Your task to perform on an android device: toggle show notifications on the lock screen Image 0: 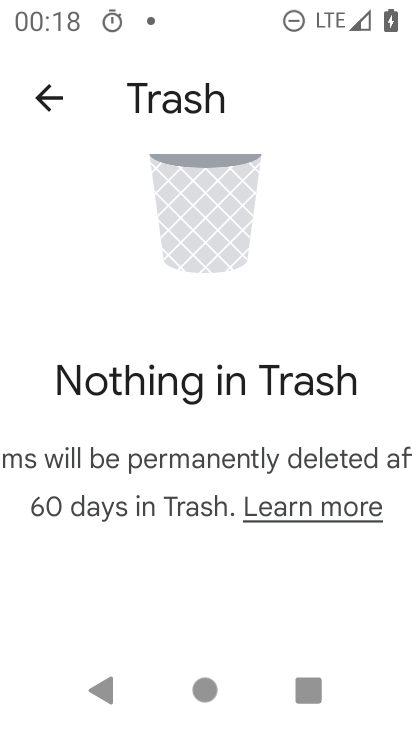
Step 0: click (214, 304)
Your task to perform on an android device: toggle show notifications on the lock screen Image 1: 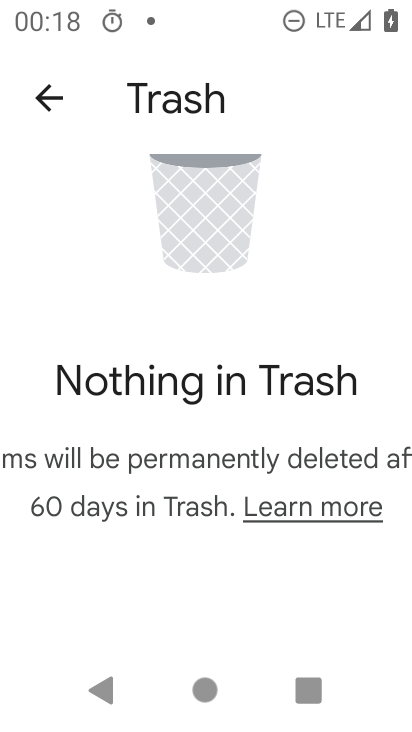
Step 1: click (52, 95)
Your task to perform on an android device: toggle show notifications on the lock screen Image 2: 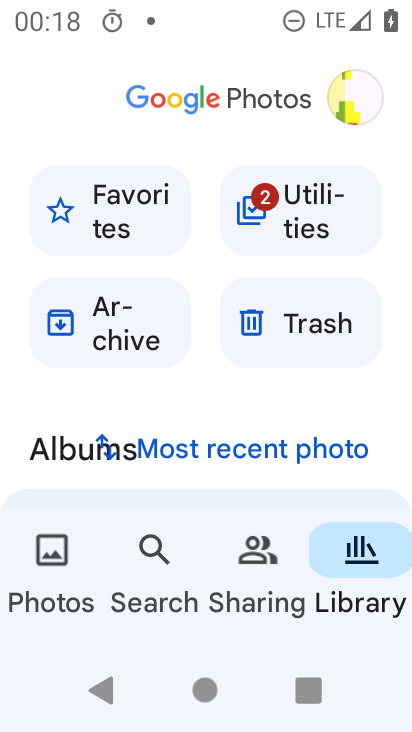
Step 2: press home button
Your task to perform on an android device: toggle show notifications on the lock screen Image 3: 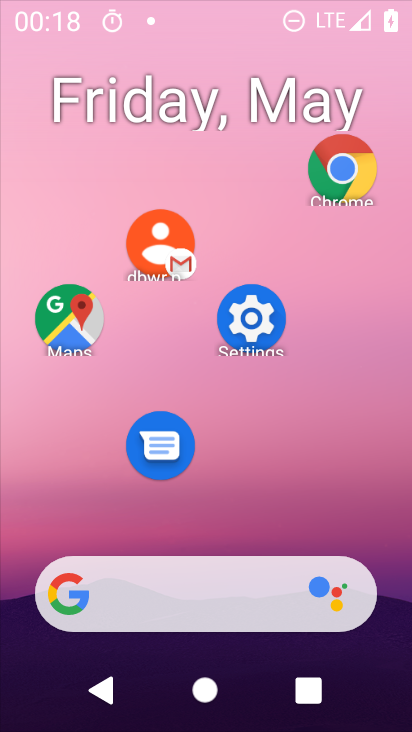
Step 3: drag from (190, 530) to (238, 122)
Your task to perform on an android device: toggle show notifications on the lock screen Image 4: 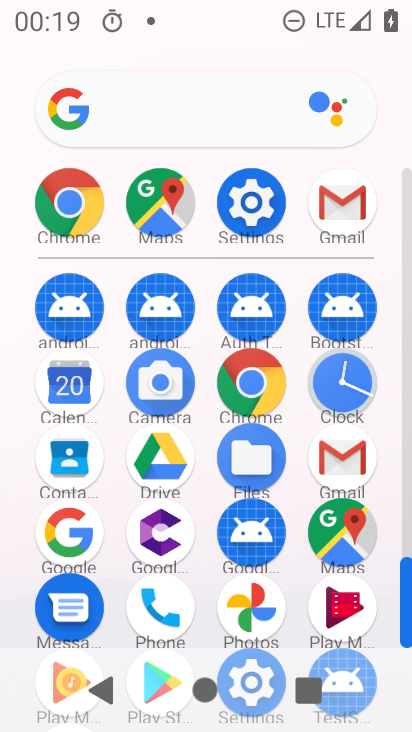
Step 4: click (230, 223)
Your task to perform on an android device: toggle show notifications on the lock screen Image 5: 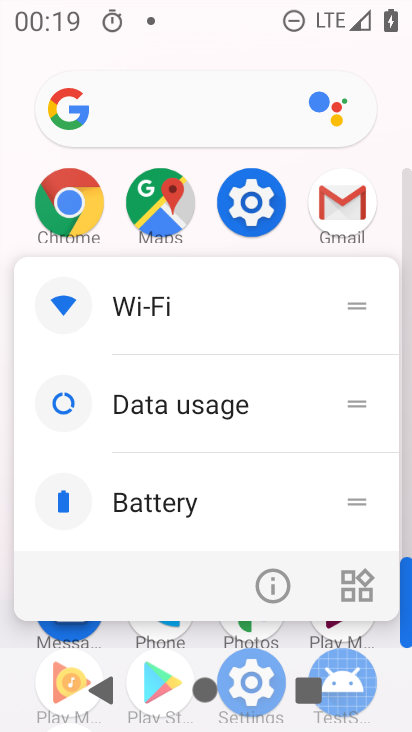
Step 5: click (275, 599)
Your task to perform on an android device: toggle show notifications on the lock screen Image 6: 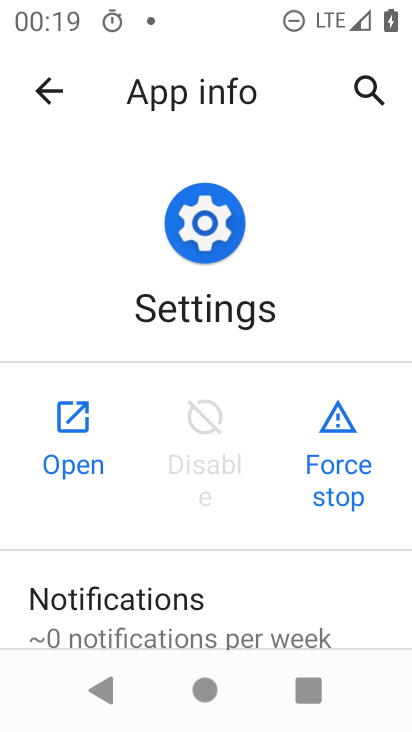
Step 6: click (71, 458)
Your task to perform on an android device: toggle show notifications on the lock screen Image 7: 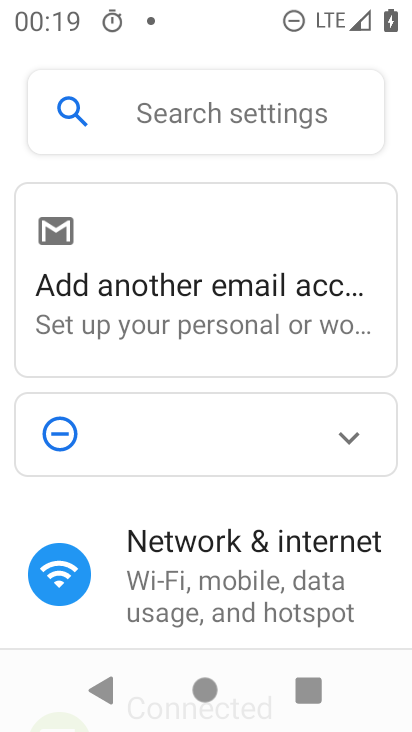
Step 7: drag from (250, 542) to (362, 182)
Your task to perform on an android device: toggle show notifications on the lock screen Image 8: 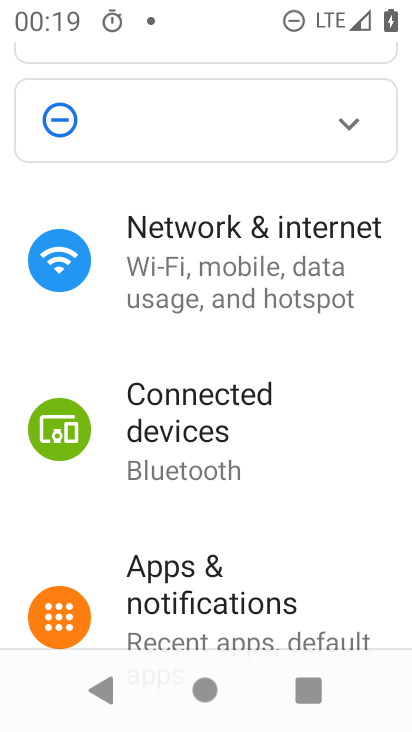
Step 8: click (216, 552)
Your task to perform on an android device: toggle show notifications on the lock screen Image 9: 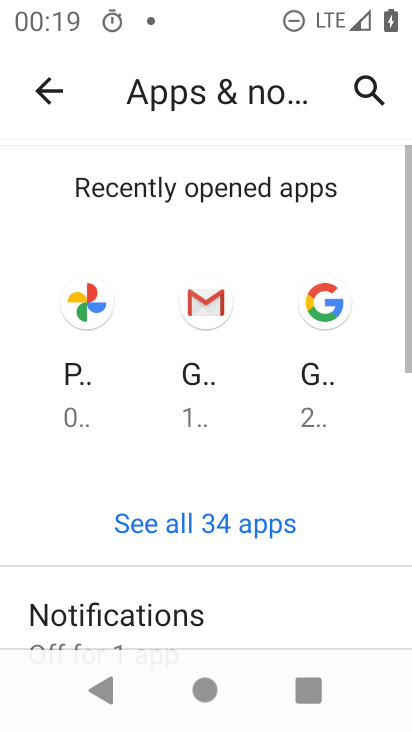
Step 9: drag from (218, 547) to (340, 71)
Your task to perform on an android device: toggle show notifications on the lock screen Image 10: 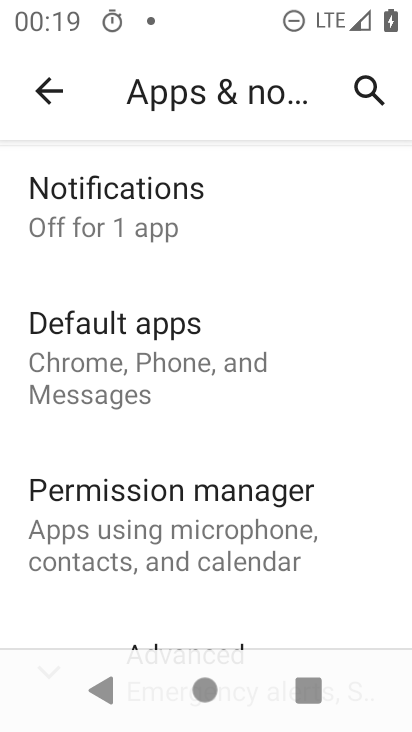
Step 10: click (187, 222)
Your task to perform on an android device: toggle show notifications on the lock screen Image 11: 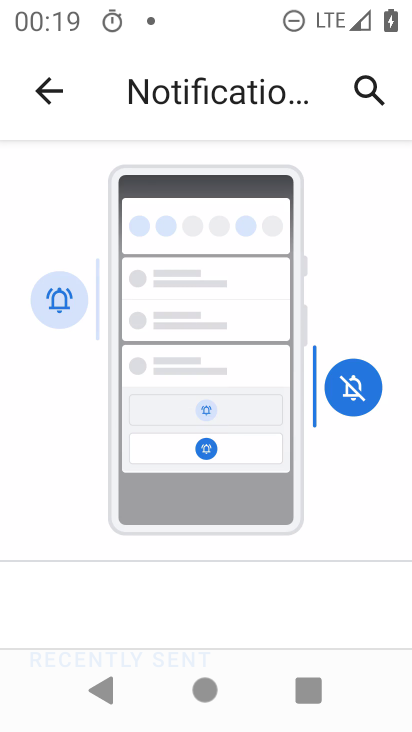
Step 11: drag from (212, 575) to (246, 196)
Your task to perform on an android device: toggle show notifications on the lock screen Image 12: 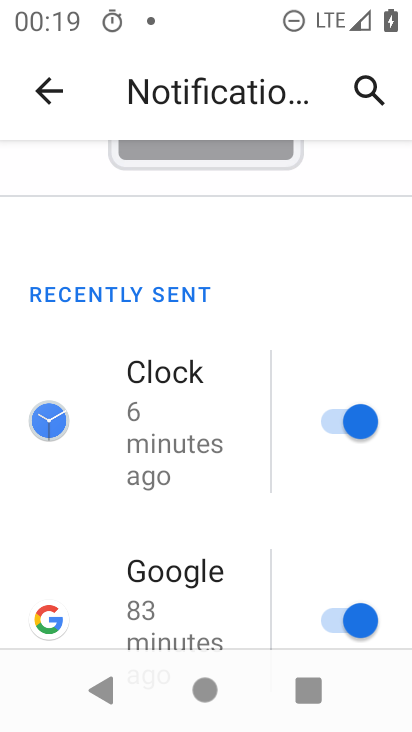
Step 12: drag from (214, 496) to (315, 153)
Your task to perform on an android device: toggle show notifications on the lock screen Image 13: 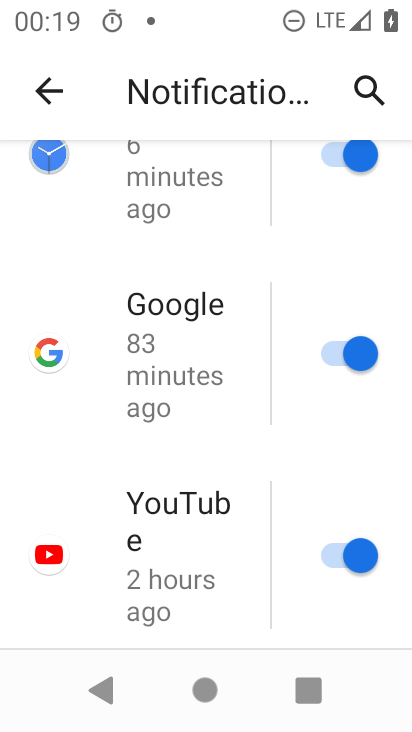
Step 13: drag from (259, 590) to (338, 197)
Your task to perform on an android device: toggle show notifications on the lock screen Image 14: 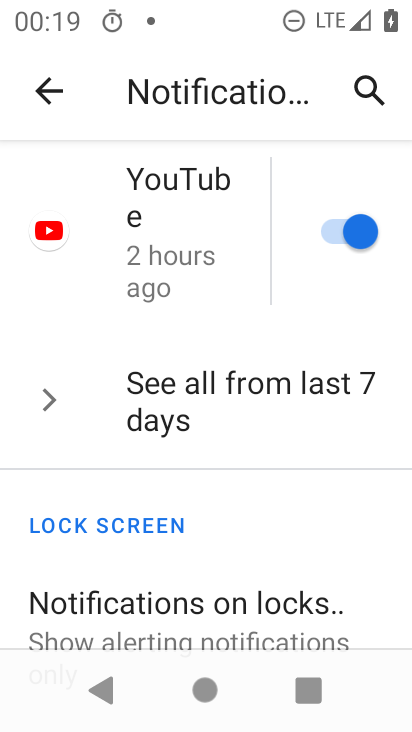
Step 14: click (205, 620)
Your task to perform on an android device: toggle show notifications on the lock screen Image 15: 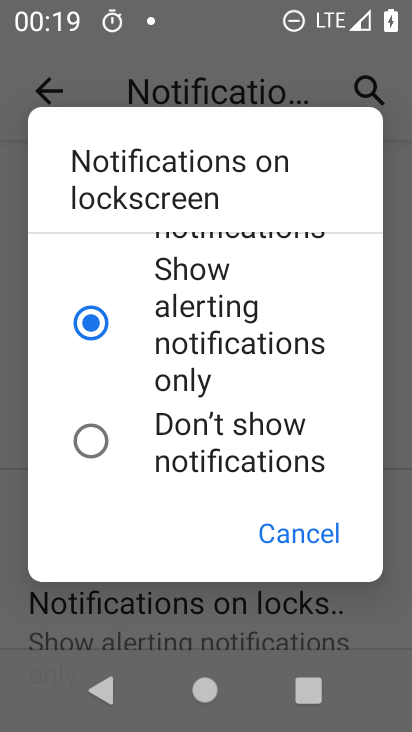
Step 15: drag from (257, 300) to (213, 630)
Your task to perform on an android device: toggle show notifications on the lock screen Image 16: 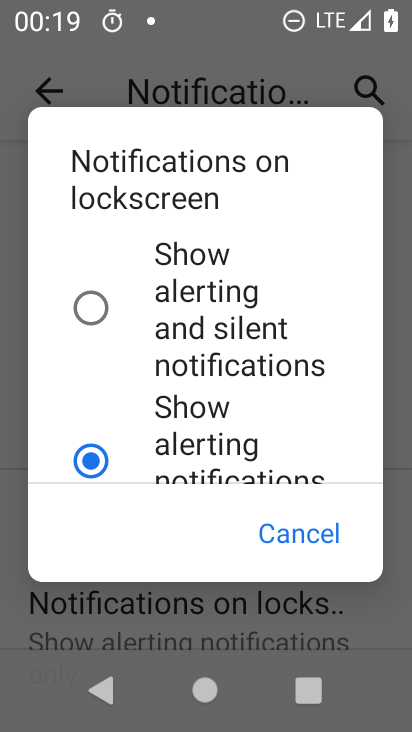
Step 16: click (180, 290)
Your task to perform on an android device: toggle show notifications on the lock screen Image 17: 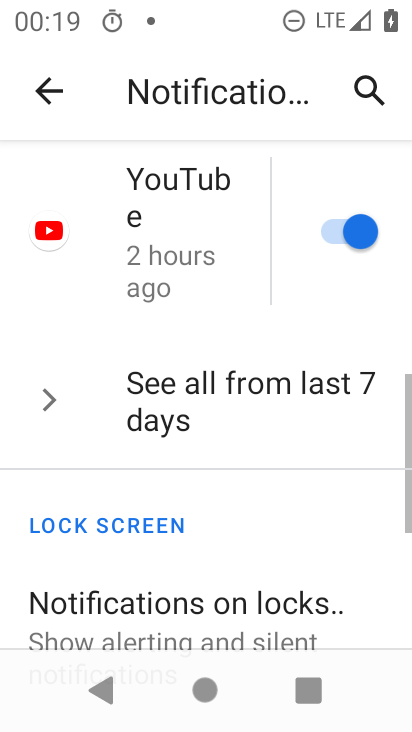
Step 17: task complete